Your task to perform on an android device: Search for pizza restaurants on Maps Image 0: 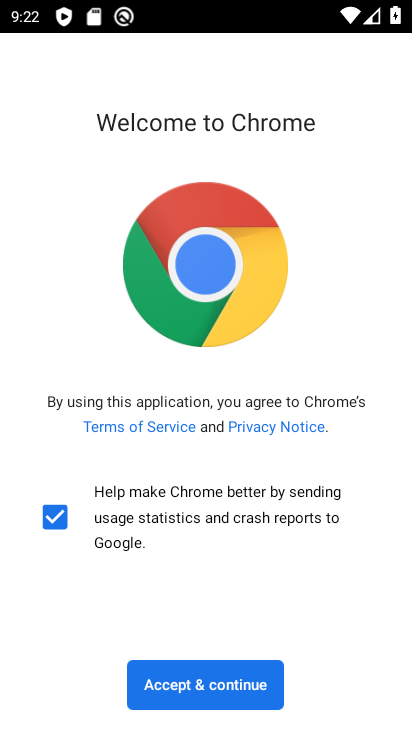
Step 0: press home button
Your task to perform on an android device: Search for pizza restaurants on Maps Image 1: 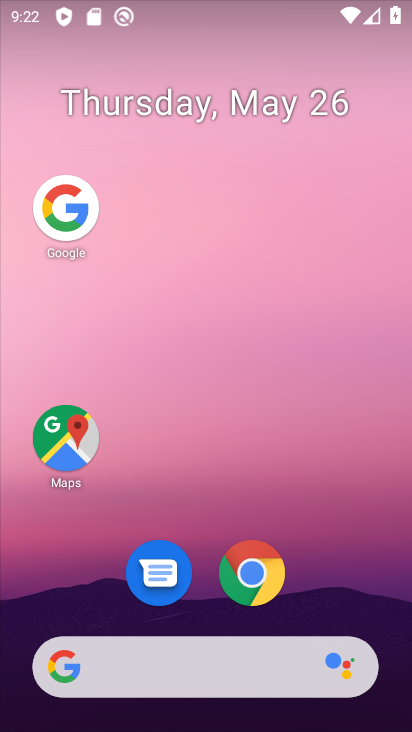
Step 1: click (66, 446)
Your task to perform on an android device: Search for pizza restaurants on Maps Image 2: 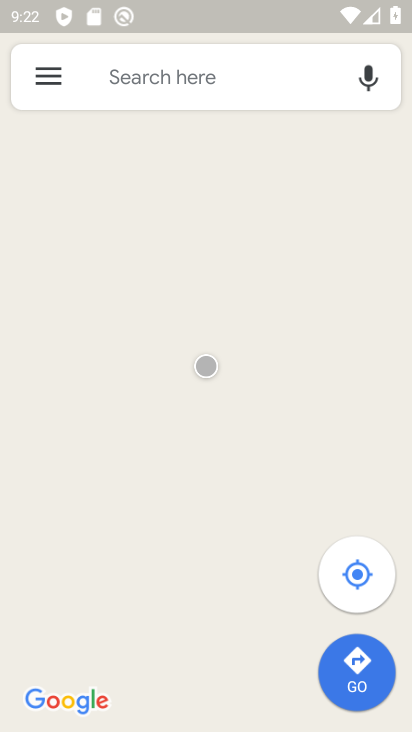
Step 2: click (206, 86)
Your task to perform on an android device: Search for pizza restaurants on Maps Image 3: 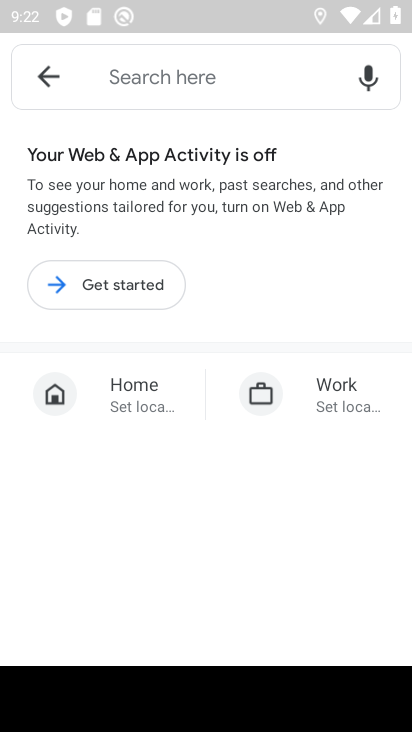
Step 3: click (50, 78)
Your task to perform on an android device: Search for pizza restaurants on Maps Image 4: 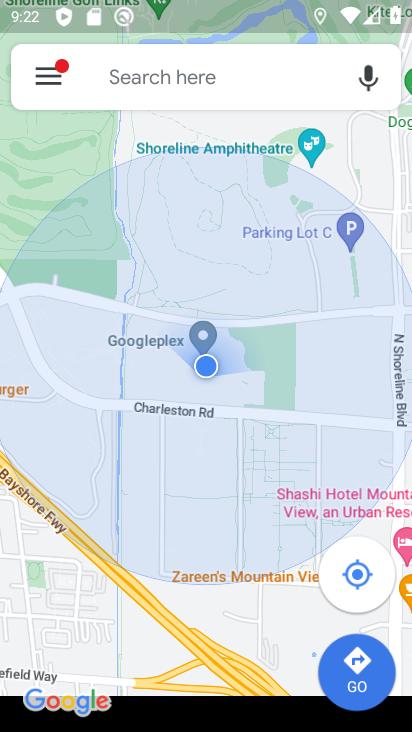
Step 4: click (230, 88)
Your task to perform on an android device: Search for pizza restaurants on Maps Image 5: 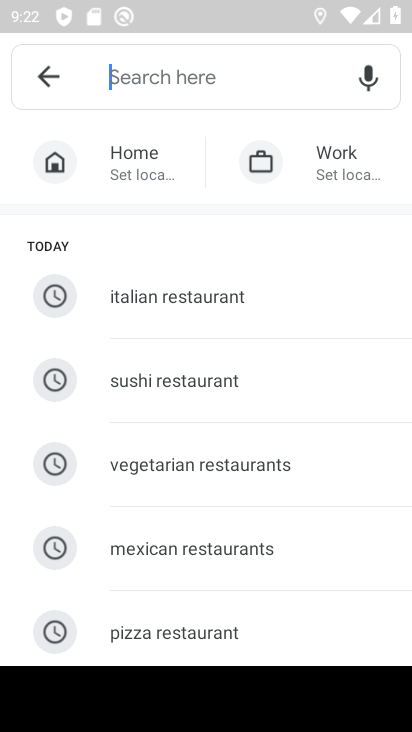
Step 5: drag from (267, 569) to (292, 233)
Your task to perform on an android device: Search for pizza restaurants on Maps Image 6: 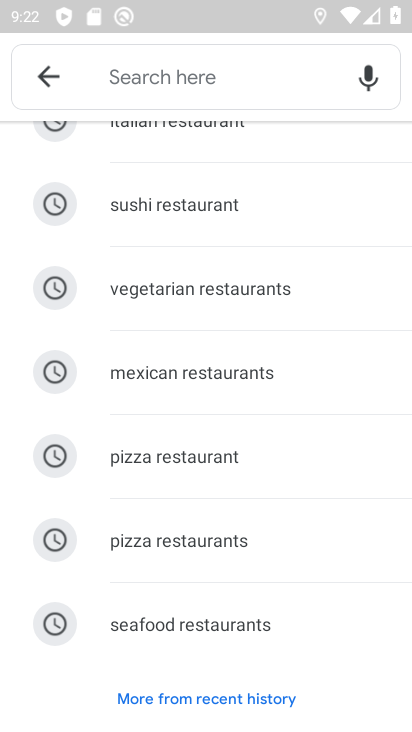
Step 6: click (226, 446)
Your task to perform on an android device: Search for pizza restaurants on Maps Image 7: 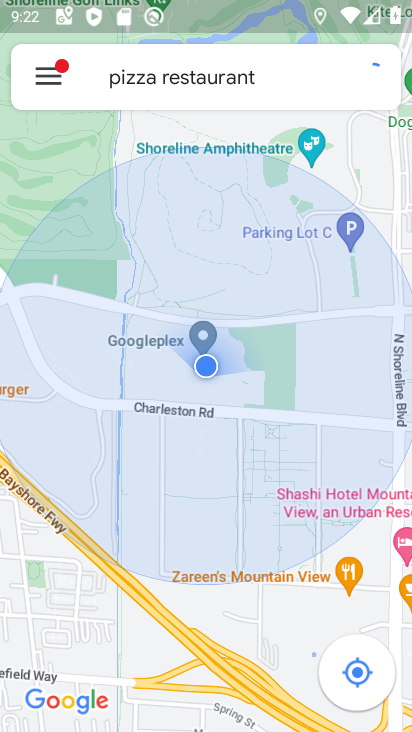
Step 7: task complete